Your task to perform on an android device: install app "The Home Depot" Image 0: 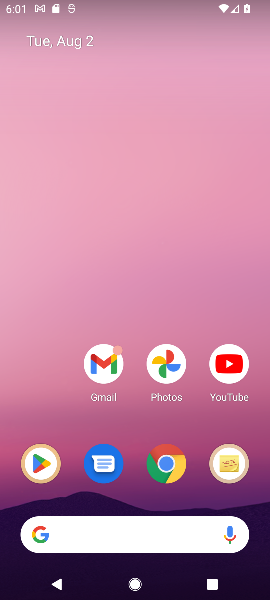
Step 0: click (49, 459)
Your task to perform on an android device: install app "The Home Depot" Image 1: 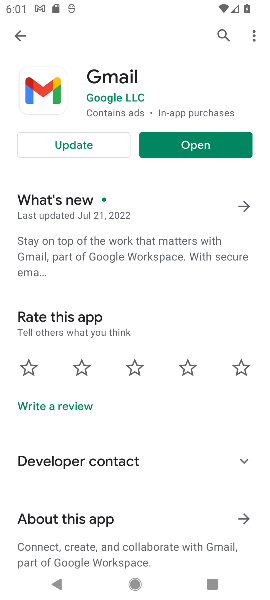
Step 1: click (220, 31)
Your task to perform on an android device: install app "The Home Depot" Image 2: 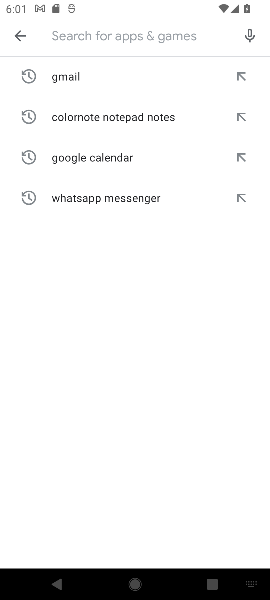
Step 2: type "The Home Depot"
Your task to perform on an android device: install app "The Home Depot" Image 3: 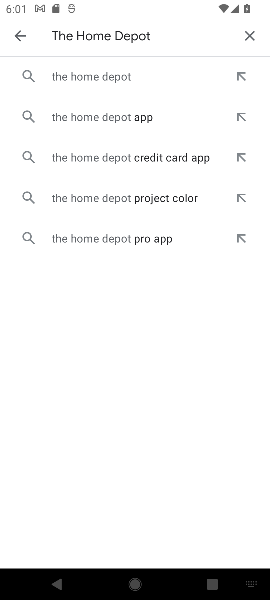
Step 3: click (98, 72)
Your task to perform on an android device: install app "The Home Depot" Image 4: 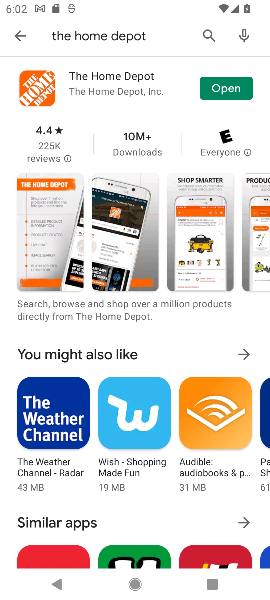
Step 4: task complete